Your task to perform on an android device: open app "VLC for Android" Image 0: 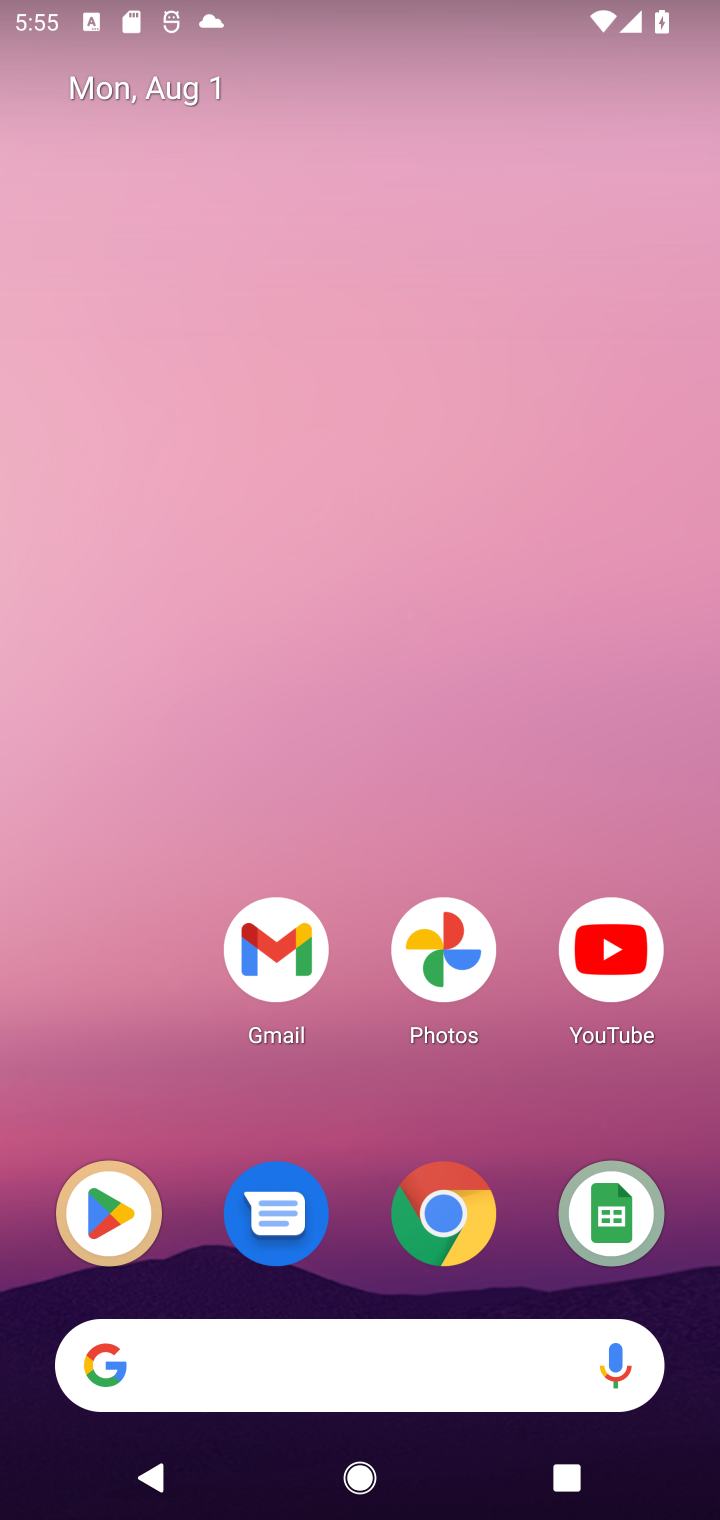
Step 0: drag from (512, 1100) to (493, 6)
Your task to perform on an android device: open app "VLC for Android" Image 1: 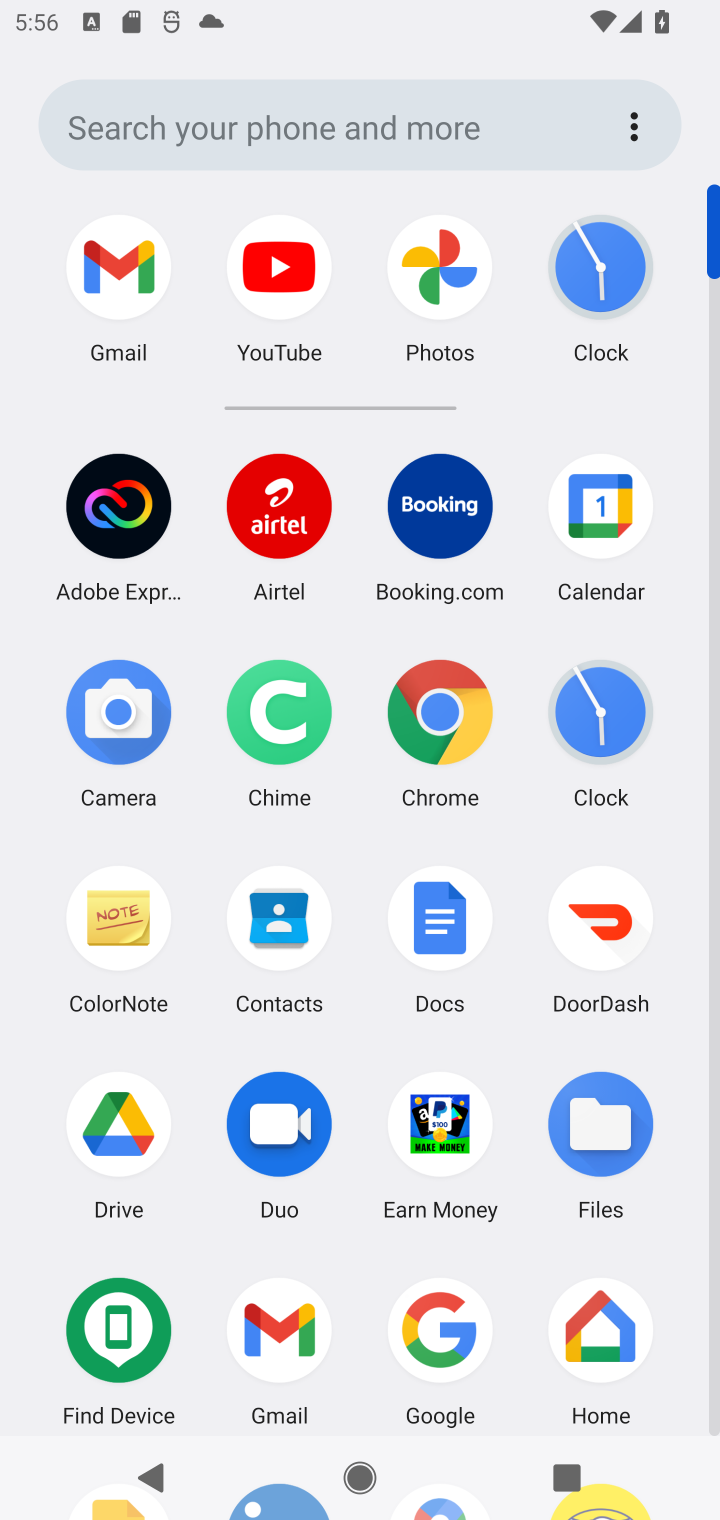
Step 1: drag from (515, 1043) to (573, 289)
Your task to perform on an android device: open app "VLC for Android" Image 2: 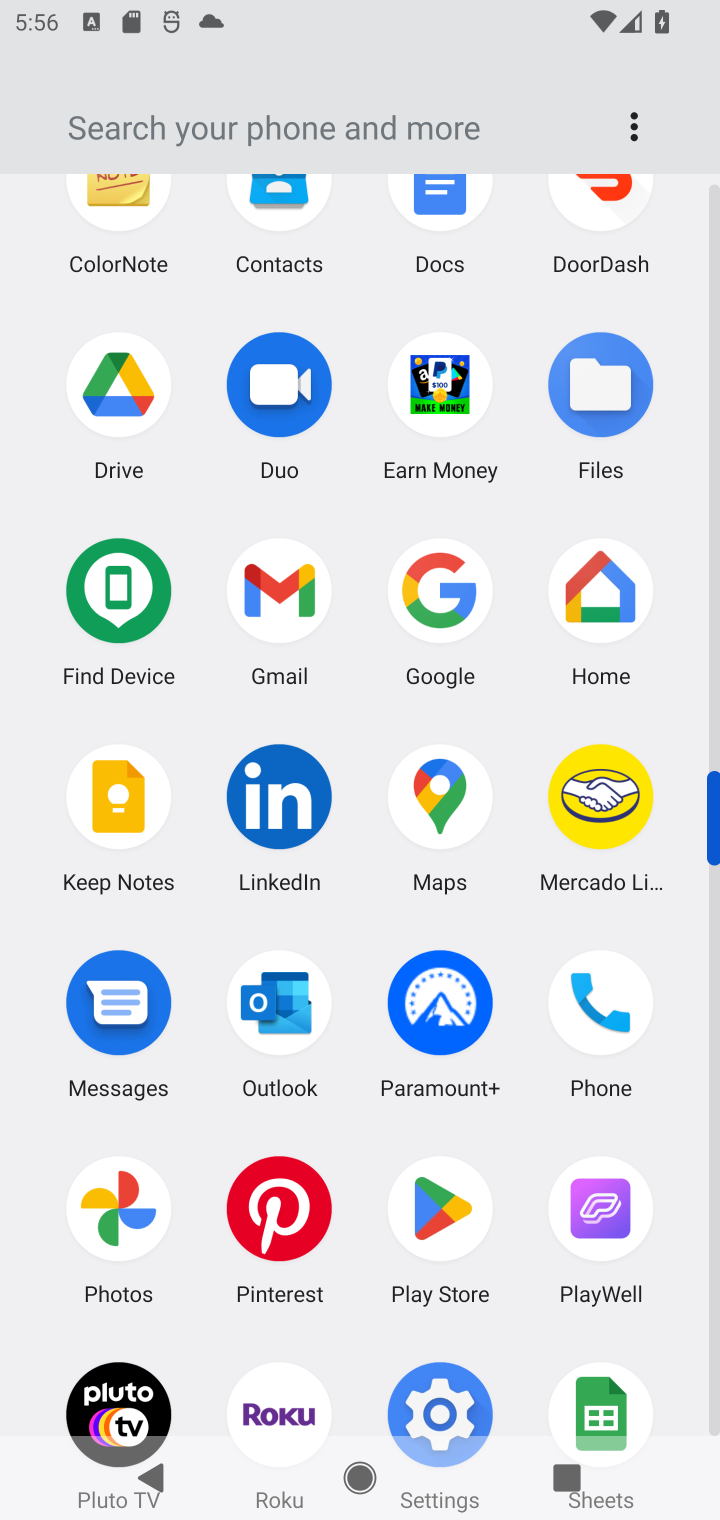
Step 2: click (441, 1200)
Your task to perform on an android device: open app "VLC for Android" Image 3: 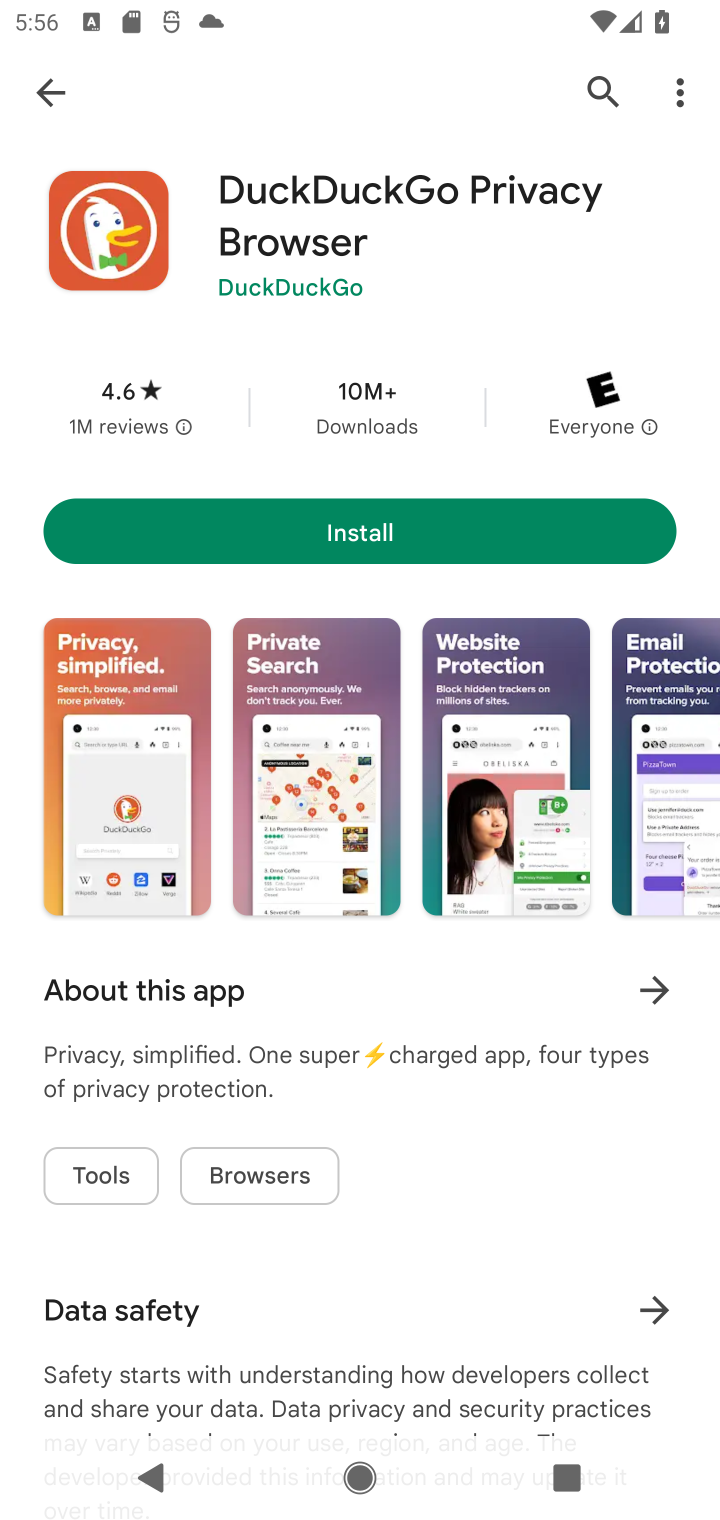
Step 3: click (604, 79)
Your task to perform on an android device: open app "VLC for Android" Image 4: 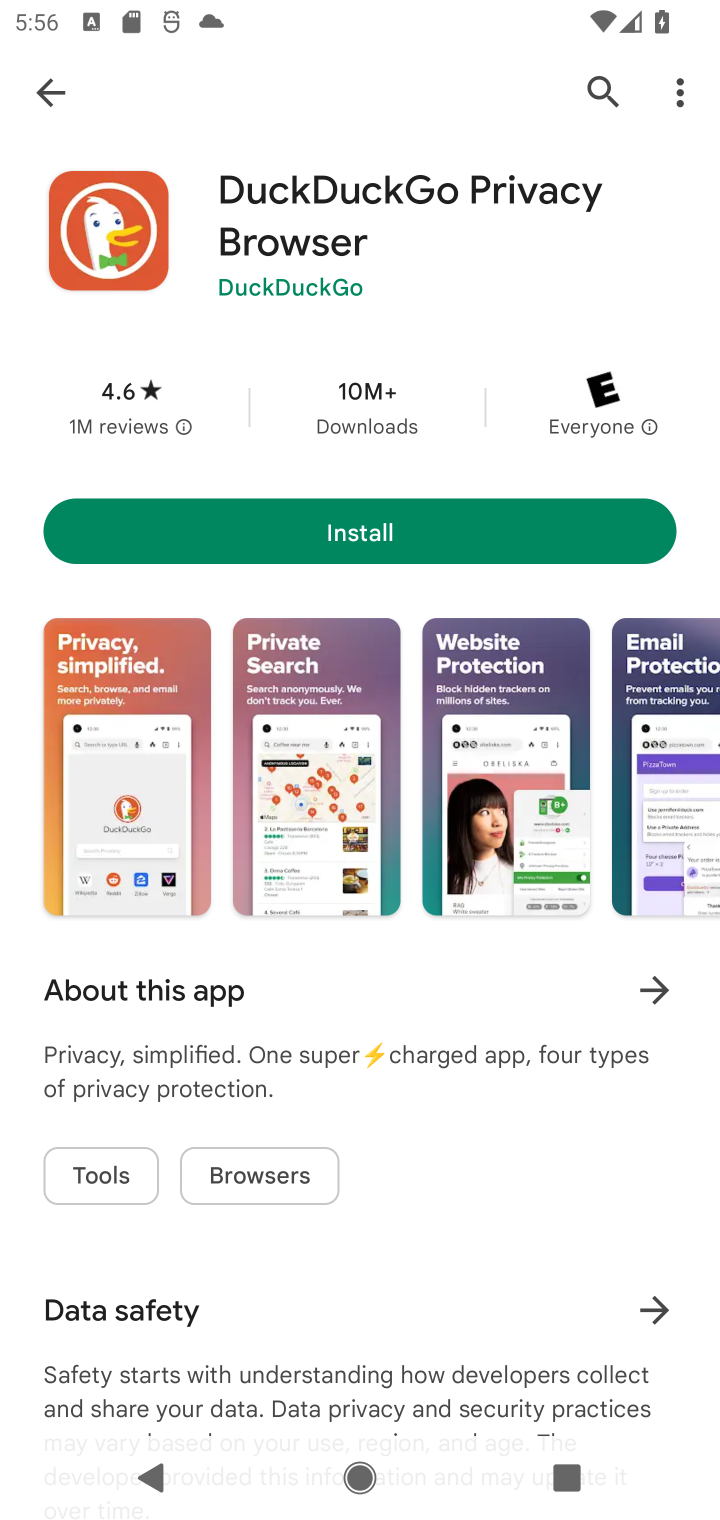
Step 4: click (610, 69)
Your task to perform on an android device: open app "VLC for Android" Image 5: 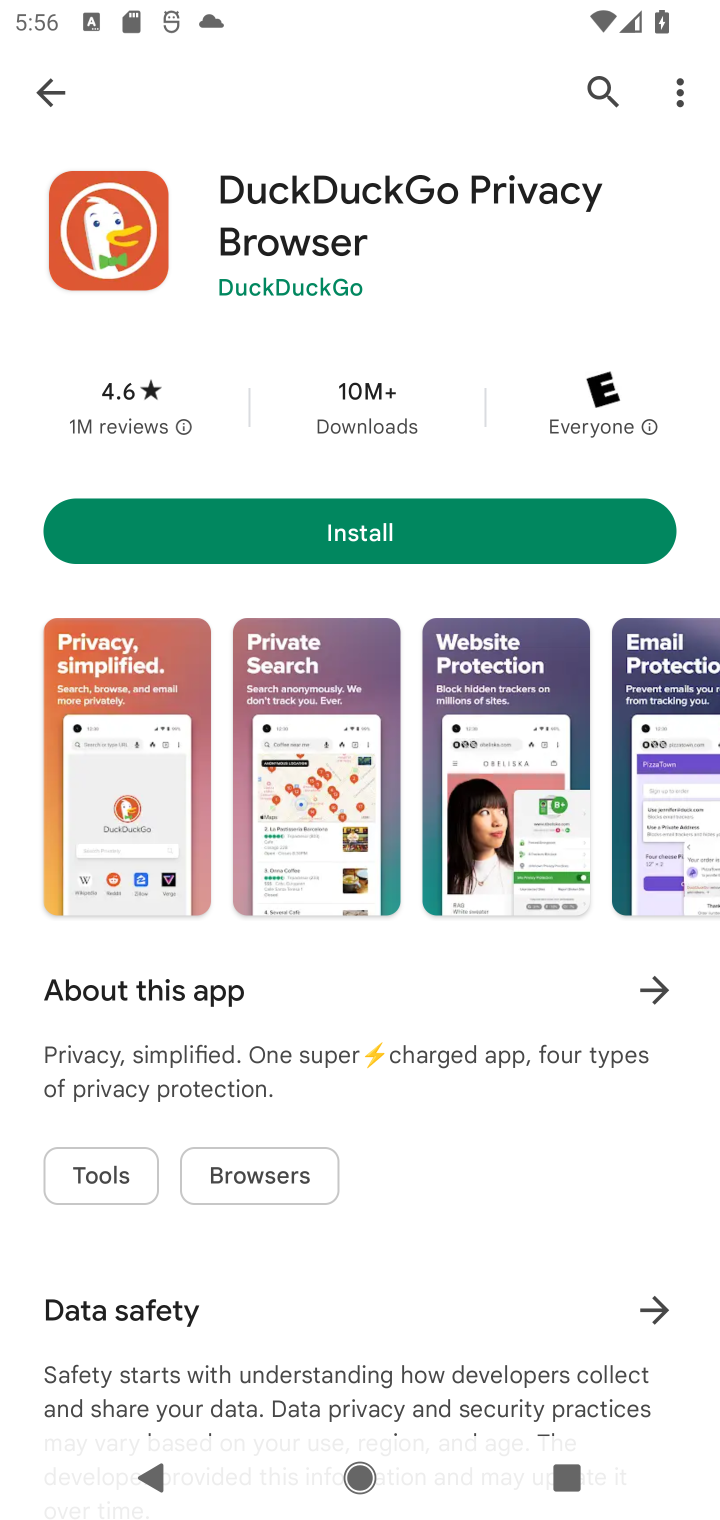
Step 5: type "VLC for Android"
Your task to perform on an android device: open app "VLC for Android" Image 6: 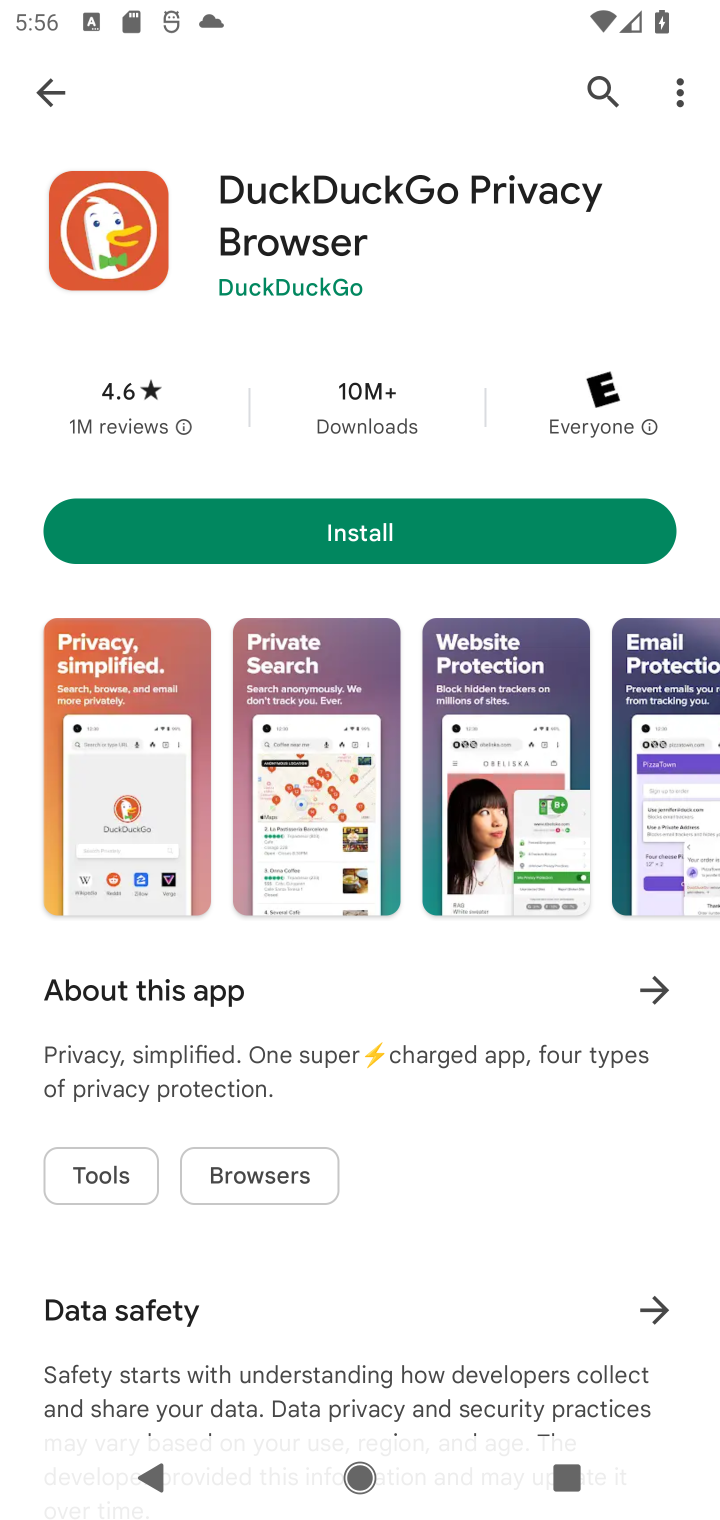
Step 6: click (601, 84)
Your task to perform on an android device: open app "VLC for Android" Image 7: 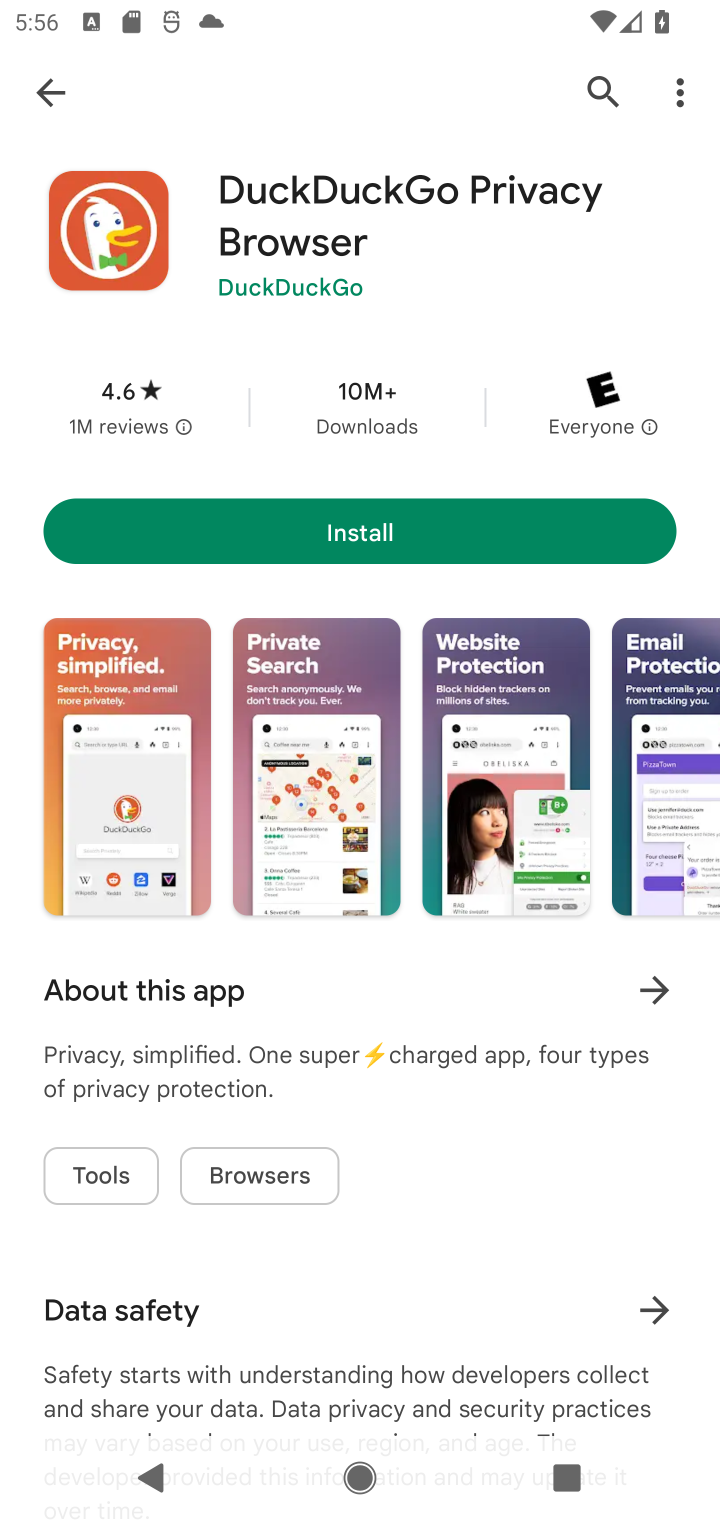
Step 7: click (601, 77)
Your task to perform on an android device: open app "VLC for Android" Image 8: 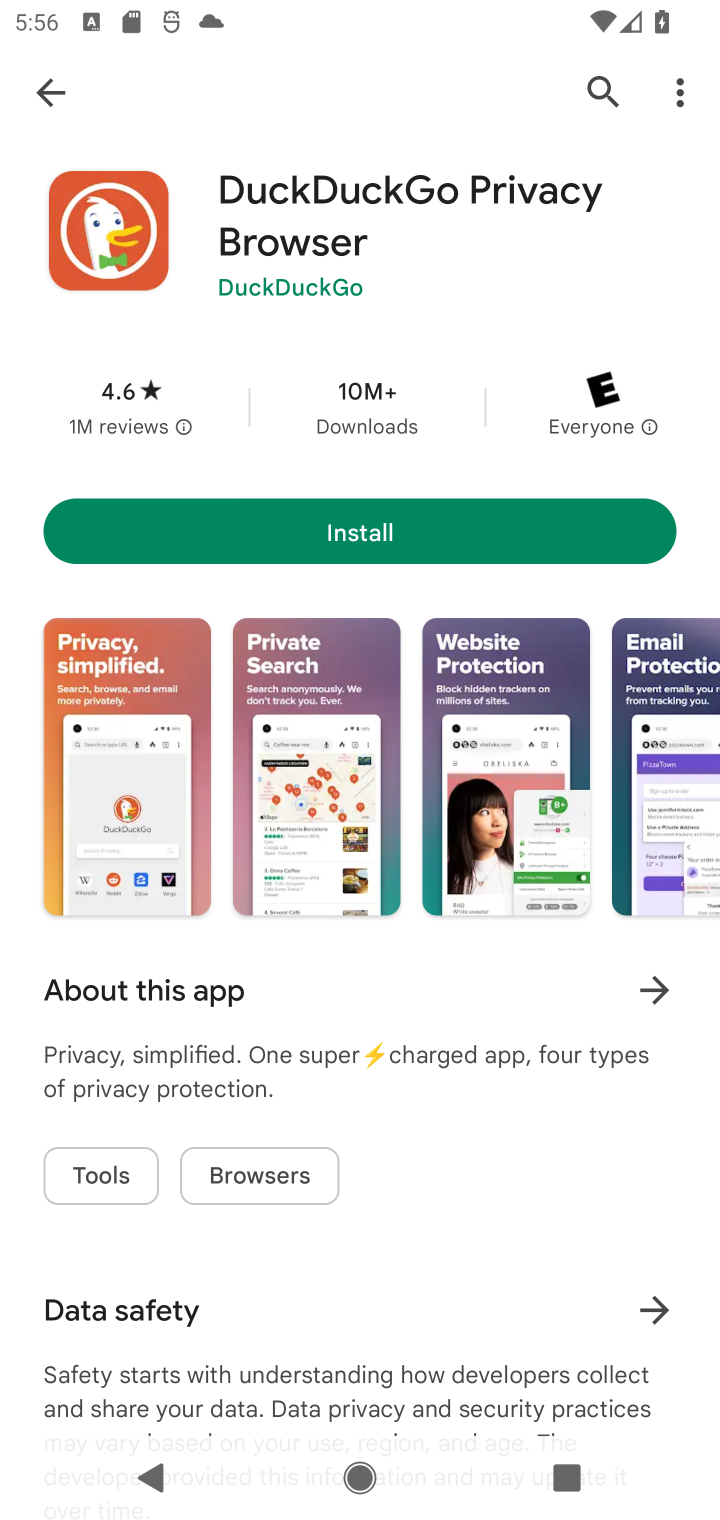
Step 8: click (605, 86)
Your task to perform on an android device: open app "VLC for Android" Image 9: 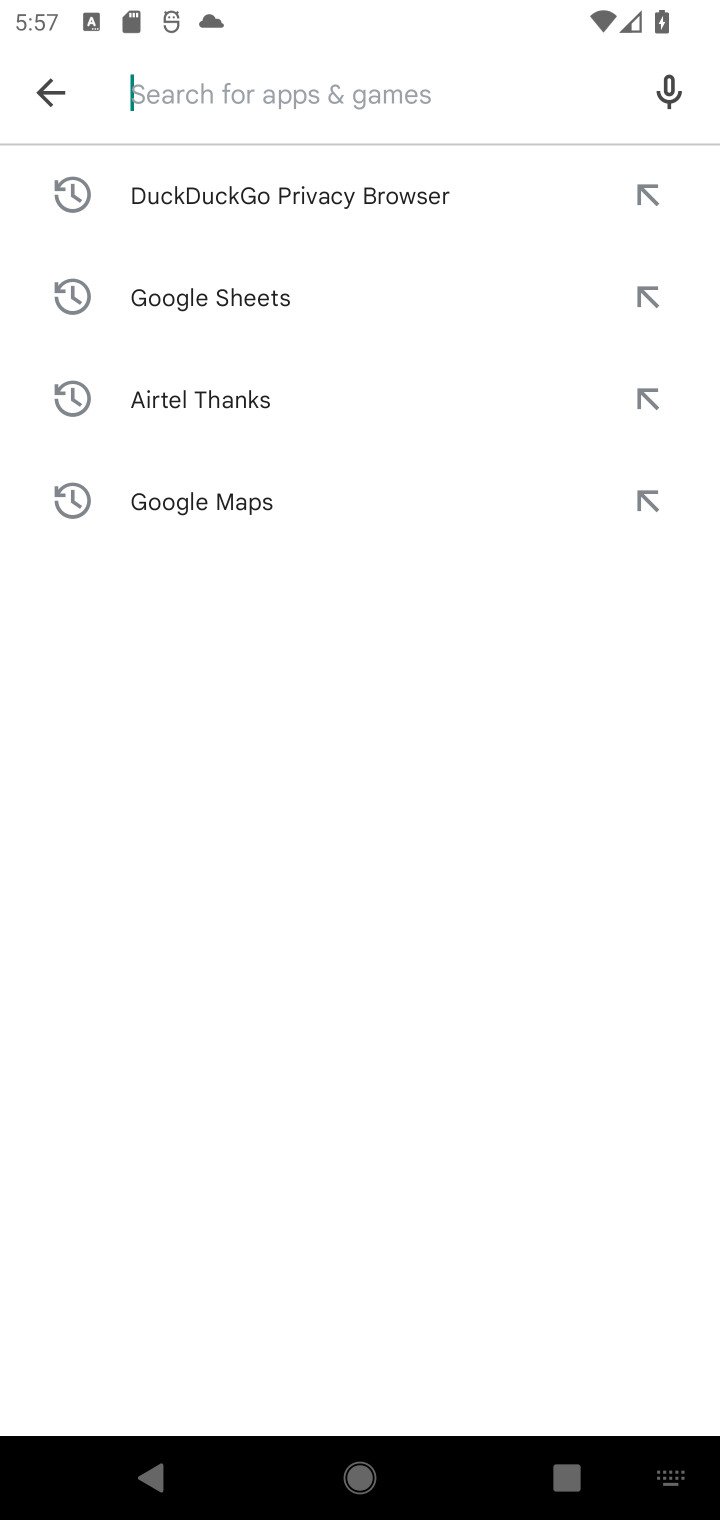
Step 9: type "VLC for Android"
Your task to perform on an android device: open app "VLC for Android" Image 10: 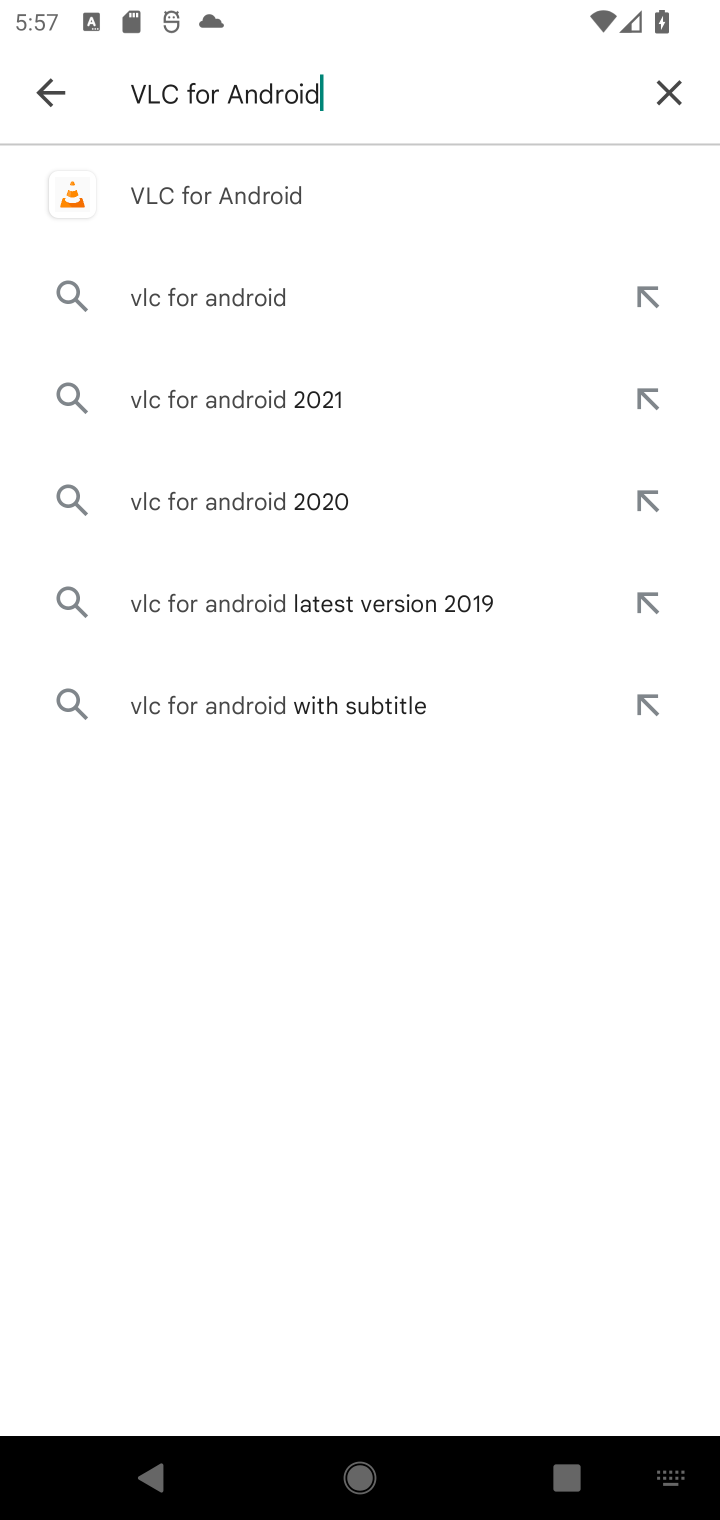
Step 10: click (352, 189)
Your task to perform on an android device: open app "VLC for Android" Image 11: 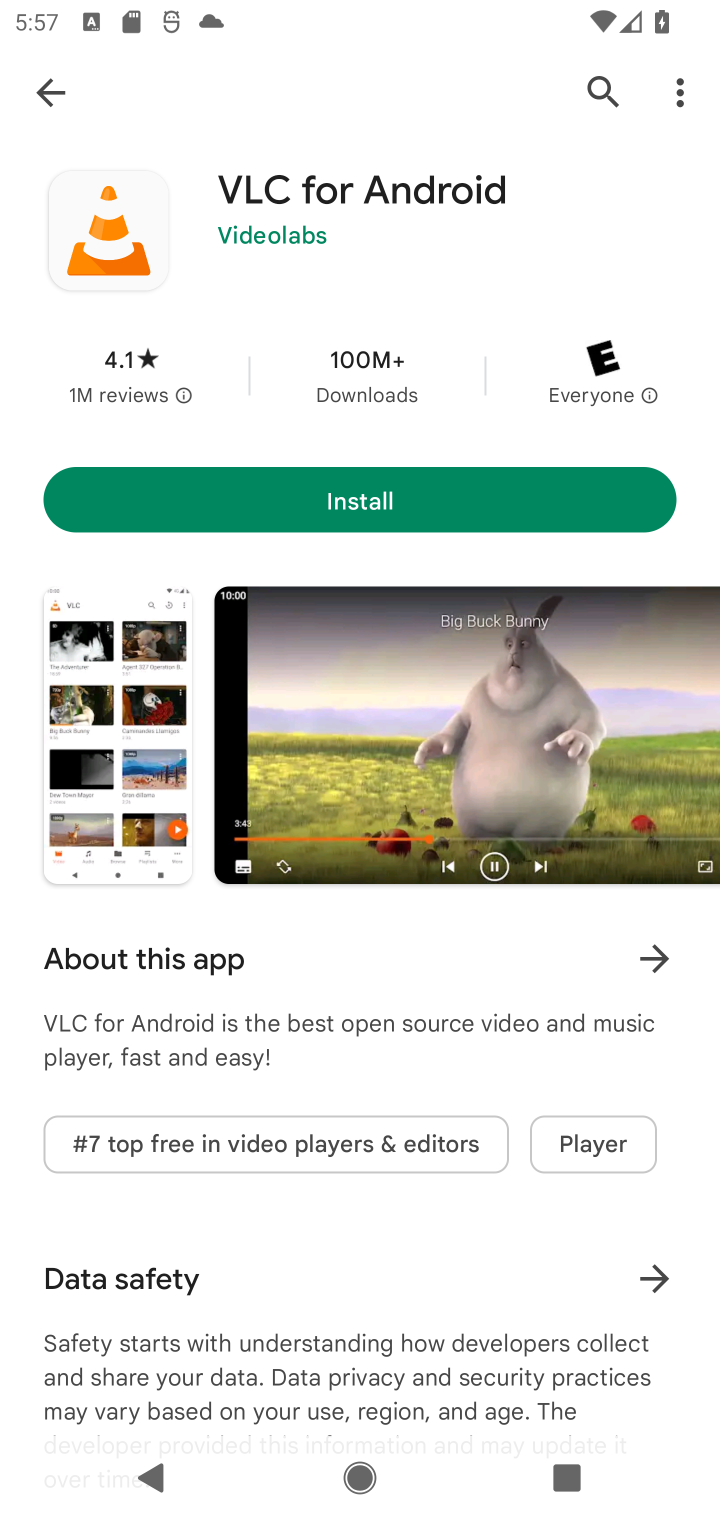
Step 11: task complete